Your task to perform on an android device: Go to sound settings Image 0: 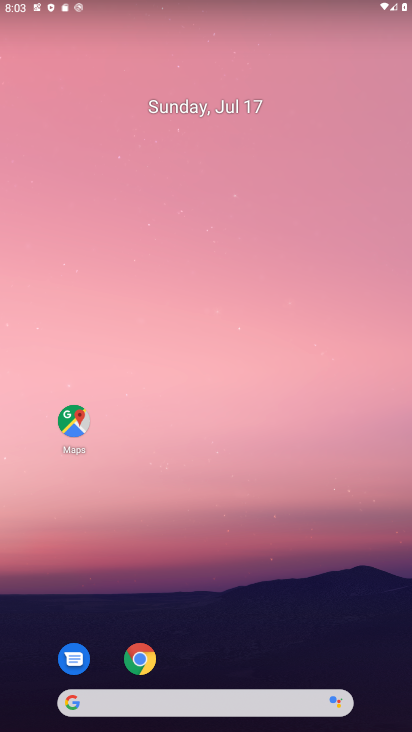
Step 0: drag from (219, 659) to (233, 162)
Your task to perform on an android device: Go to sound settings Image 1: 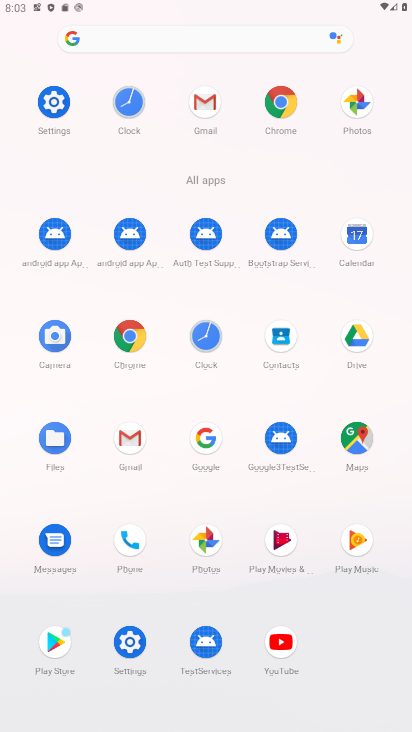
Step 1: click (45, 87)
Your task to perform on an android device: Go to sound settings Image 2: 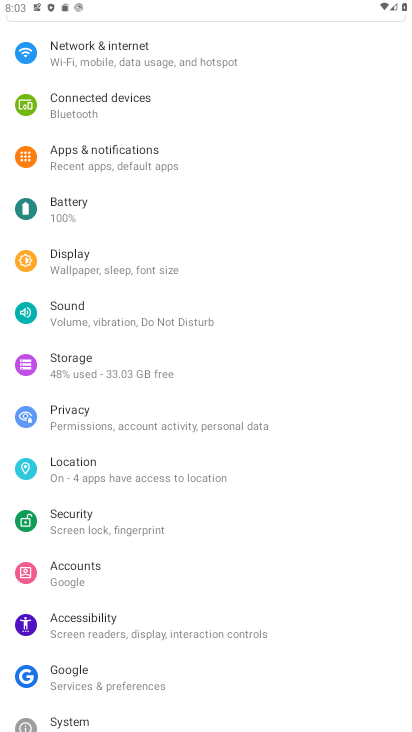
Step 2: click (94, 313)
Your task to perform on an android device: Go to sound settings Image 3: 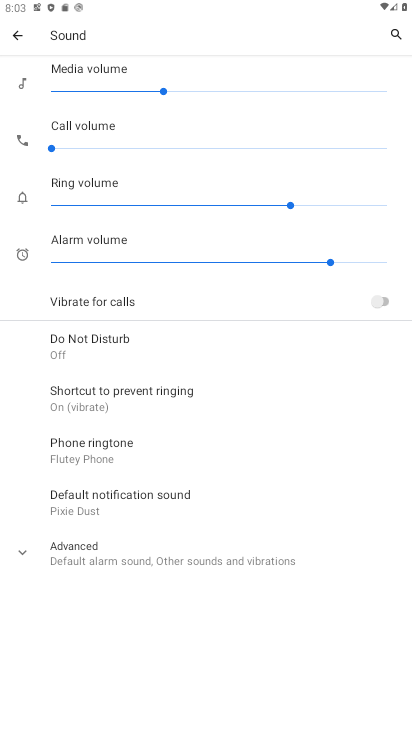
Step 3: task complete